Your task to perform on an android device: Empty the shopping cart on bestbuy. Image 0: 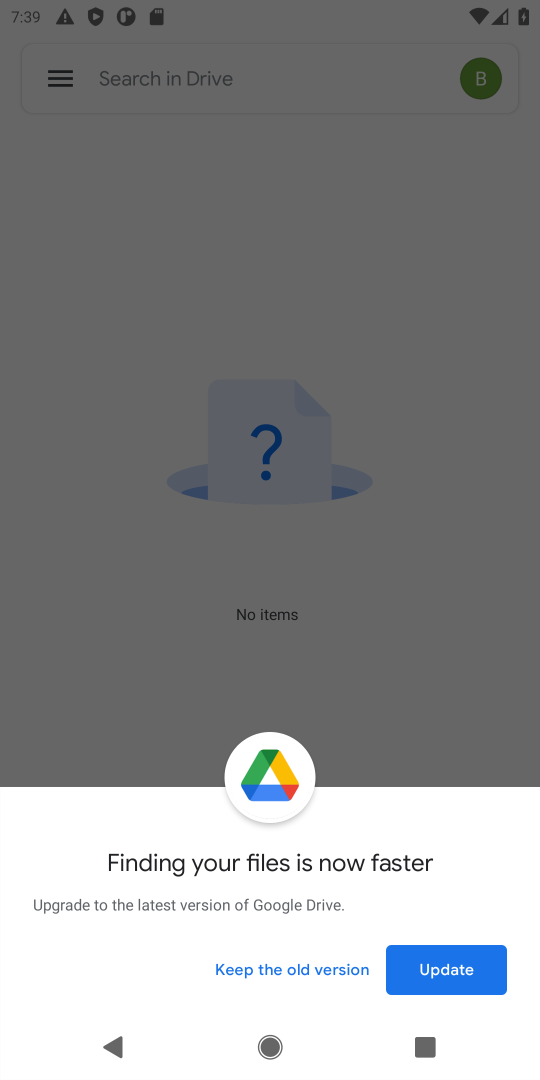
Step 0: press home button
Your task to perform on an android device: Empty the shopping cart on bestbuy. Image 1: 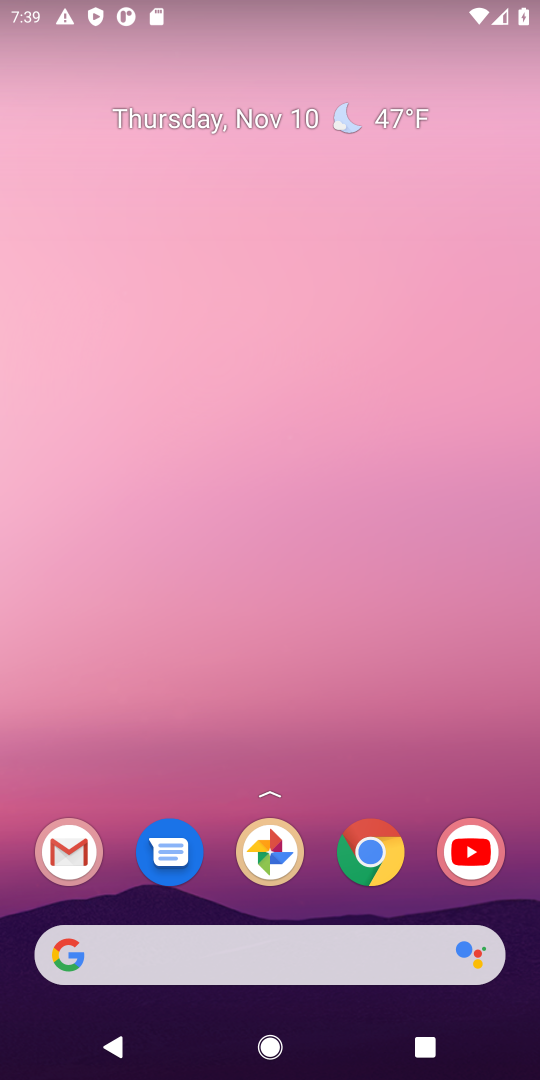
Step 1: click (367, 848)
Your task to perform on an android device: Empty the shopping cart on bestbuy. Image 2: 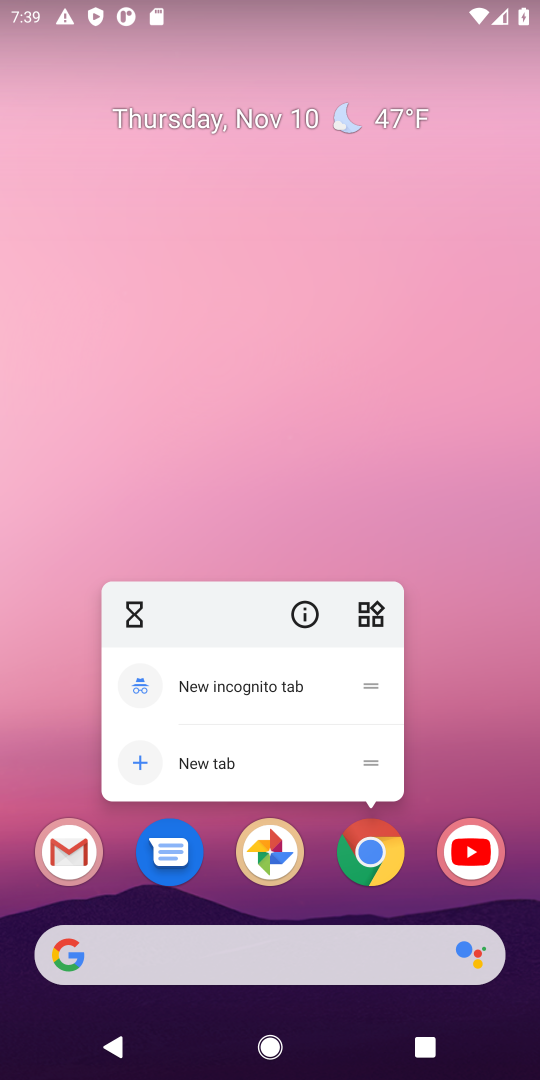
Step 2: click (367, 848)
Your task to perform on an android device: Empty the shopping cart on bestbuy. Image 3: 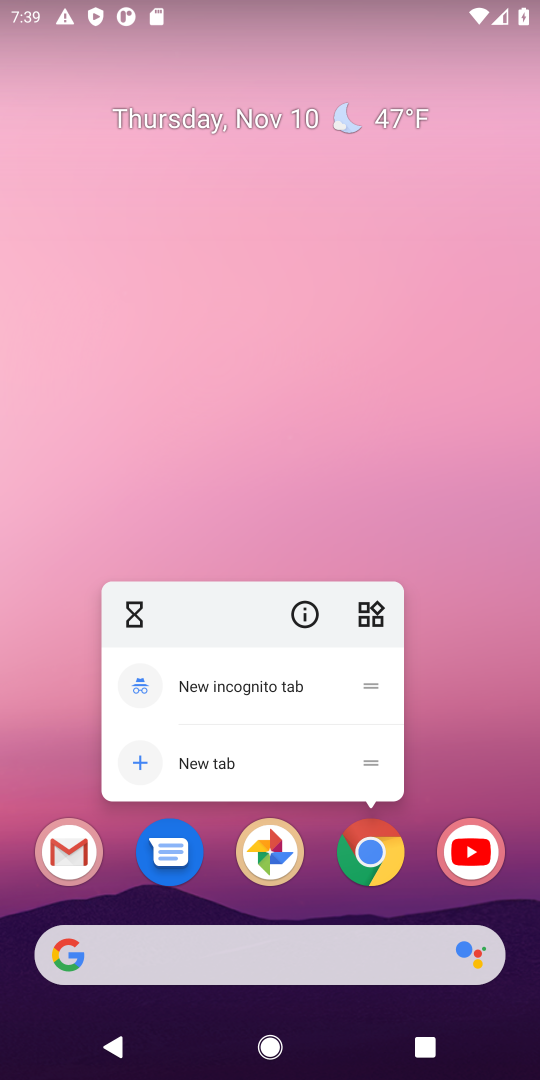
Step 3: click (367, 848)
Your task to perform on an android device: Empty the shopping cart on bestbuy. Image 4: 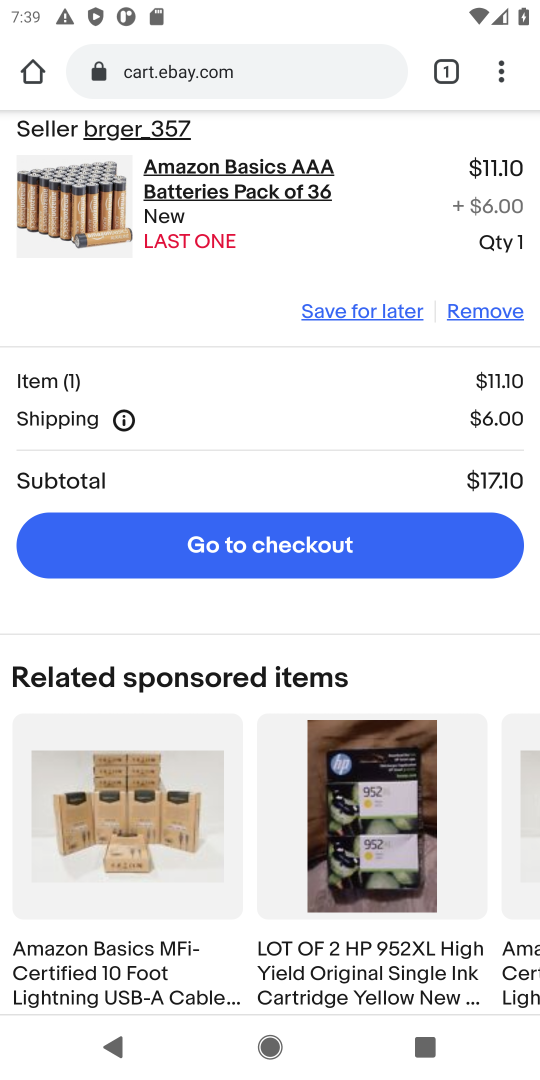
Step 4: click (288, 72)
Your task to perform on an android device: Empty the shopping cart on bestbuy. Image 5: 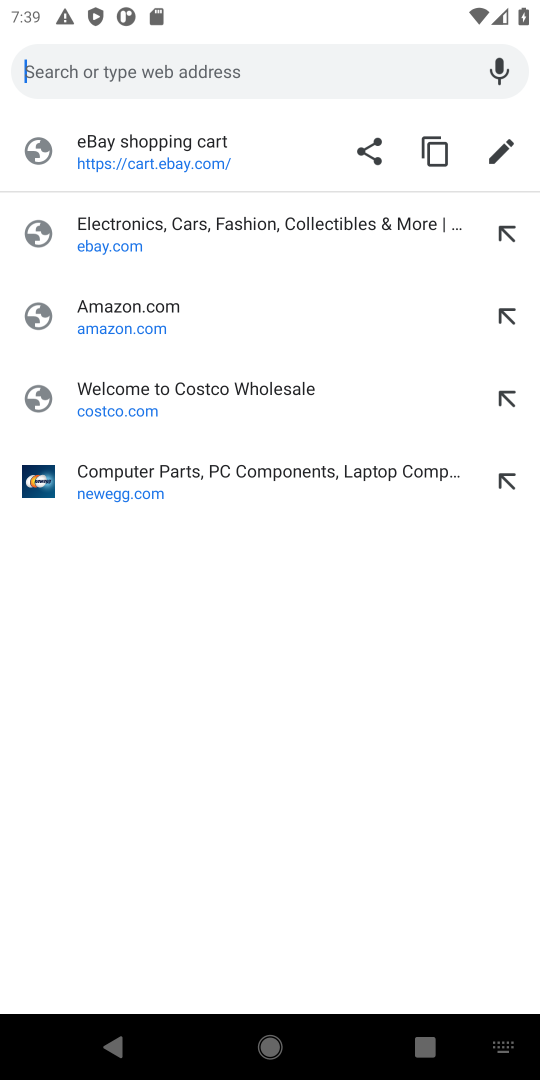
Step 5: type " bestbuy"
Your task to perform on an android device: Empty the shopping cart on bestbuy. Image 6: 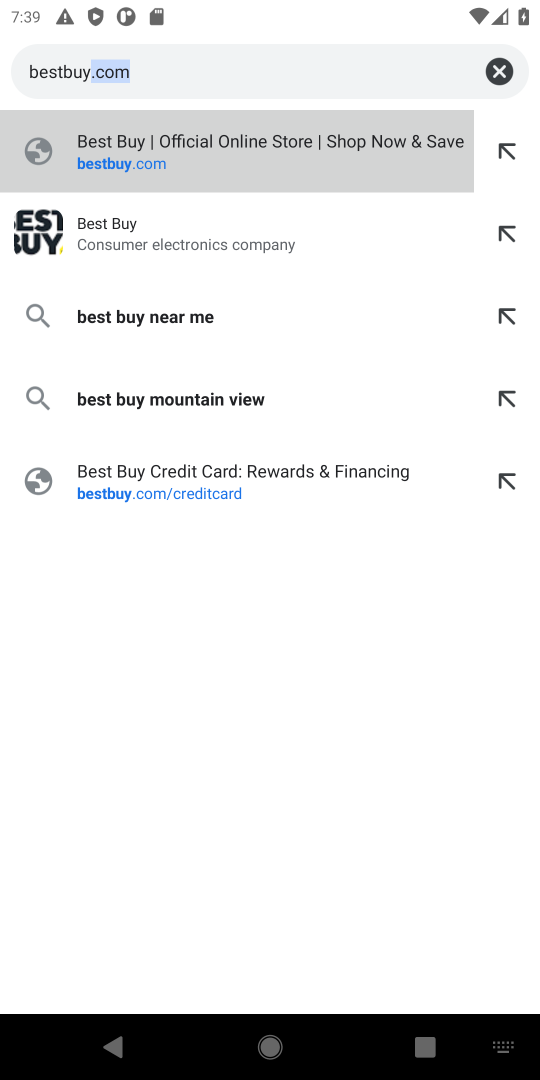
Step 6: press enter
Your task to perform on an android device: Empty the shopping cart on bestbuy. Image 7: 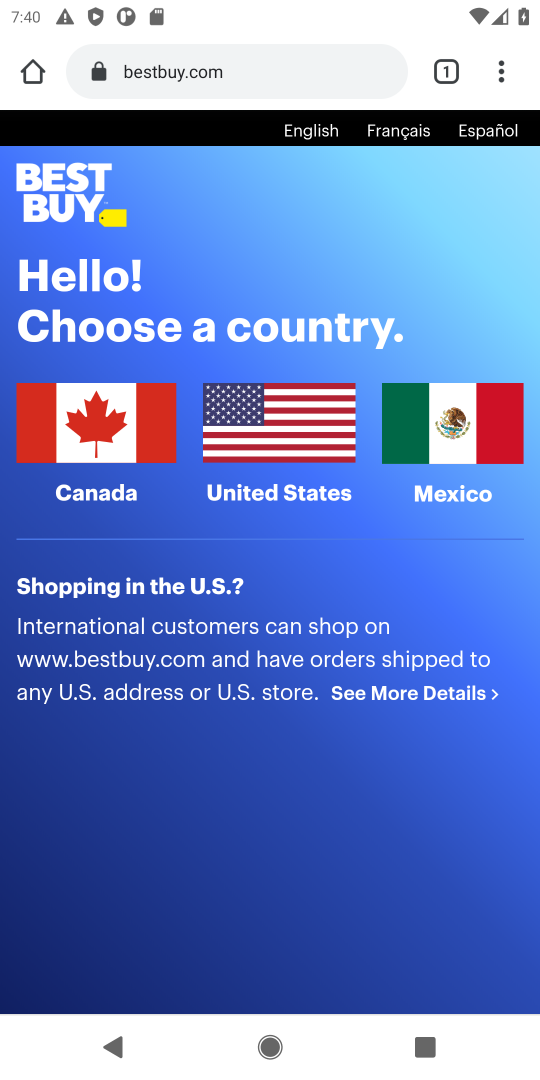
Step 7: click (130, 444)
Your task to perform on an android device: Empty the shopping cart on bestbuy. Image 8: 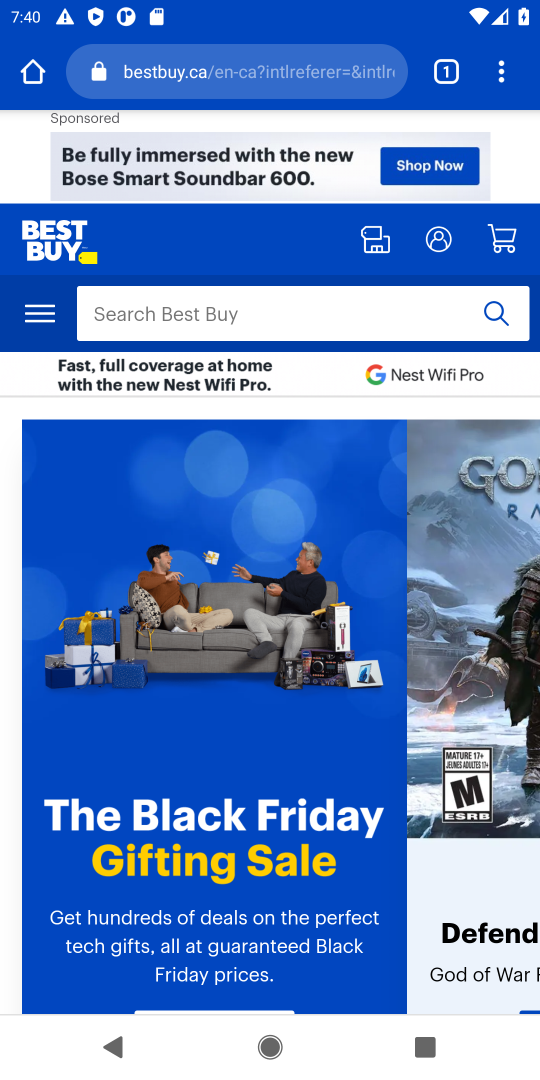
Step 8: click (501, 235)
Your task to perform on an android device: Empty the shopping cart on bestbuy. Image 9: 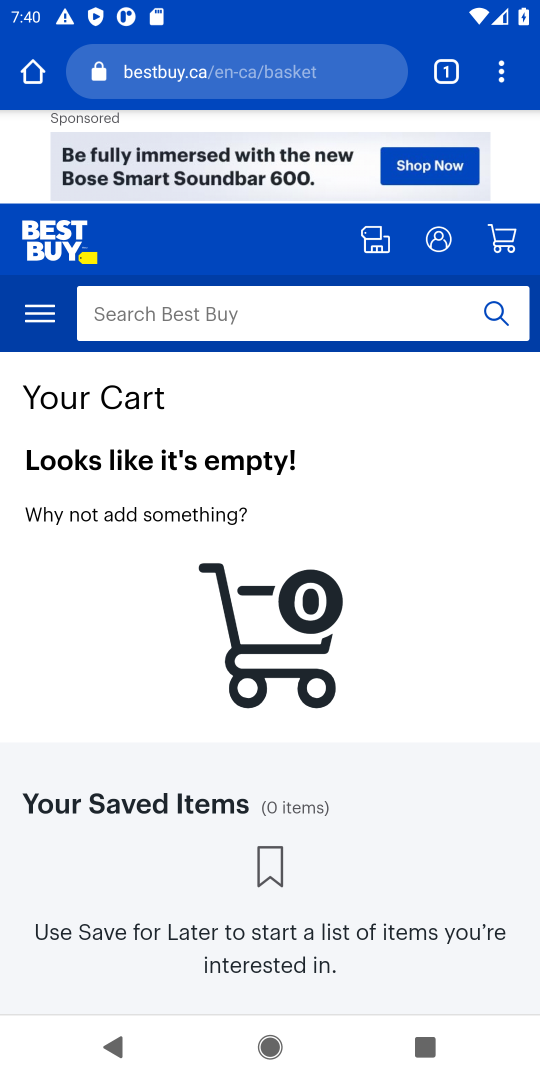
Step 9: task complete